Your task to perform on an android device: turn on translation in the chrome app Image 0: 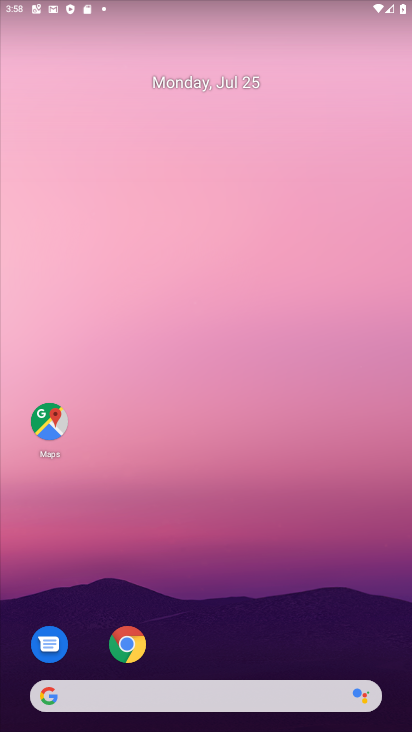
Step 0: press home button
Your task to perform on an android device: turn on translation in the chrome app Image 1: 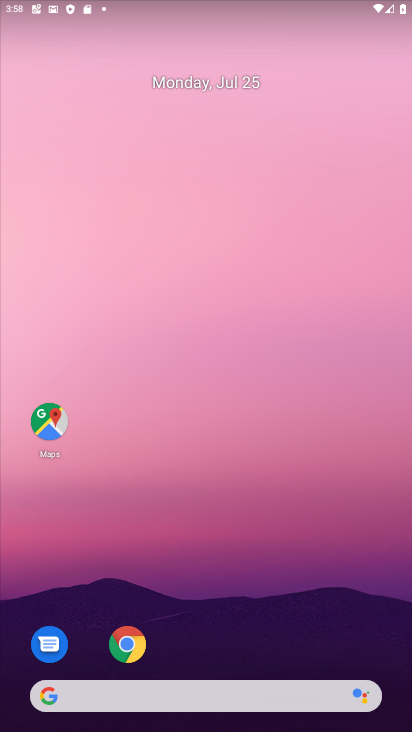
Step 1: click (123, 647)
Your task to perform on an android device: turn on translation in the chrome app Image 2: 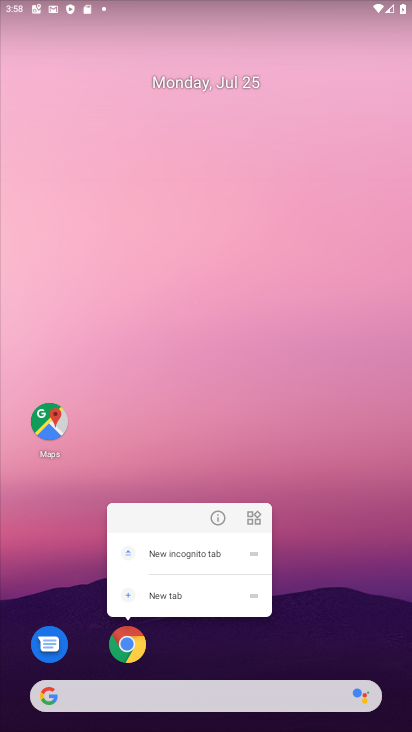
Step 2: click (128, 639)
Your task to perform on an android device: turn on translation in the chrome app Image 3: 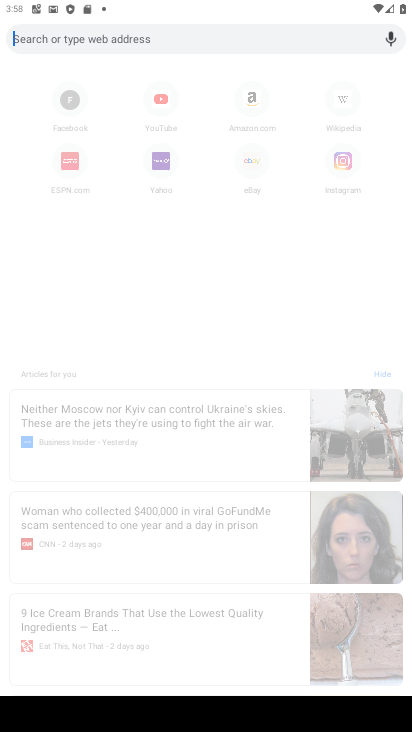
Step 3: press back button
Your task to perform on an android device: turn on translation in the chrome app Image 4: 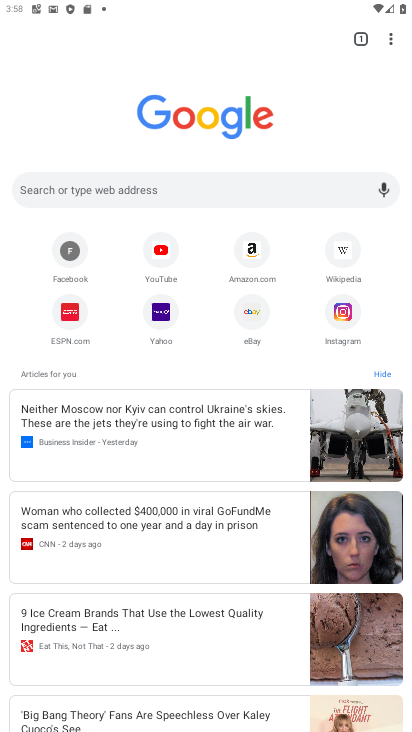
Step 4: drag from (382, 36) to (266, 321)
Your task to perform on an android device: turn on translation in the chrome app Image 5: 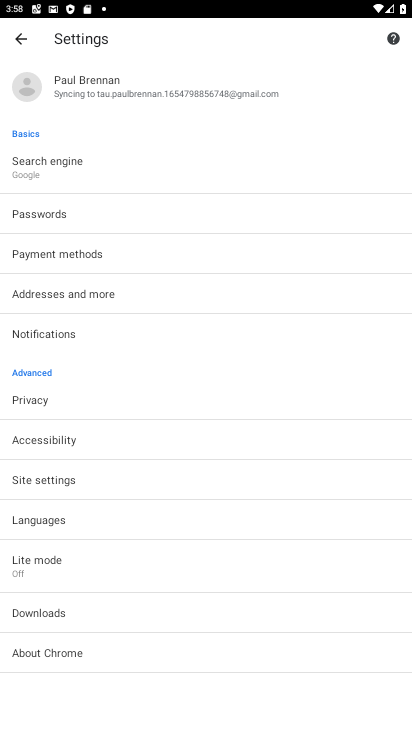
Step 5: click (23, 522)
Your task to perform on an android device: turn on translation in the chrome app Image 6: 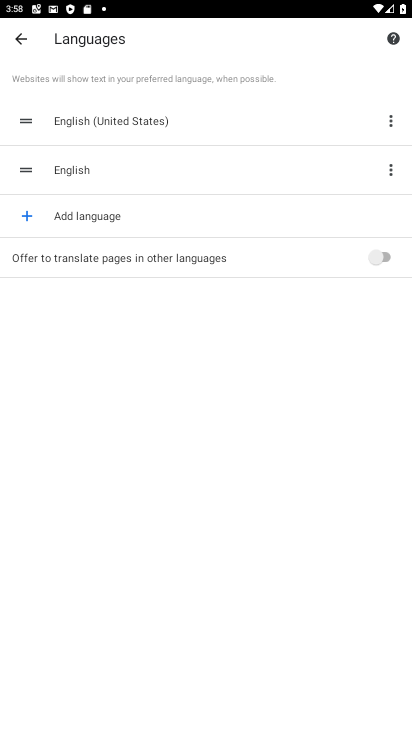
Step 6: click (372, 250)
Your task to perform on an android device: turn on translation in the chrome app Image 7: 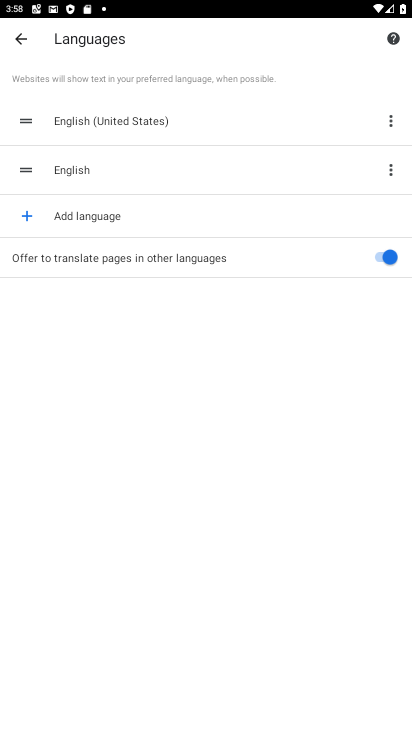
Step 7: task complete